Your task to perform on an android device: Search for the best rated kitchen reno kits on Lowes.com Image 0: 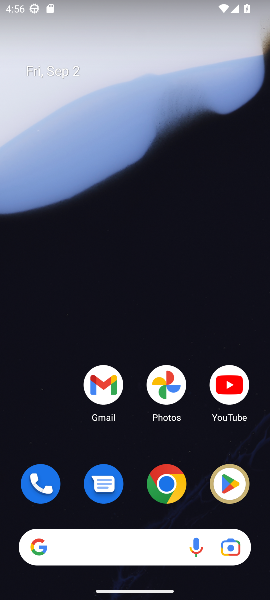
Step 0: click (170, 477)
Your task to perform on an android device: Search for the best rated kitchen reno kits on Lowes.com Image 1: 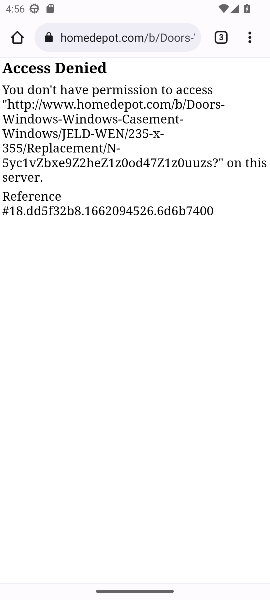
Step 1: press home button
Your task to perform on an android device: Search for the best rated kitchen reno kits on Lowes.com Image 2: 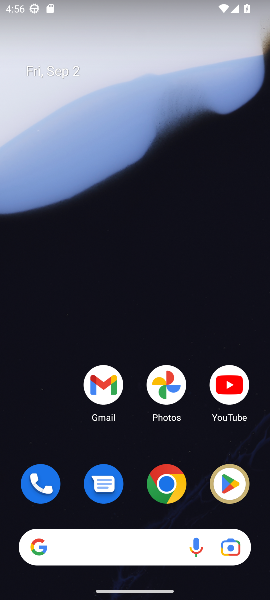
Step 2: click (162, 487)
Your task to perform on an android device: Search for the best rated kitchen reno kits on Lowes.com Image 3: 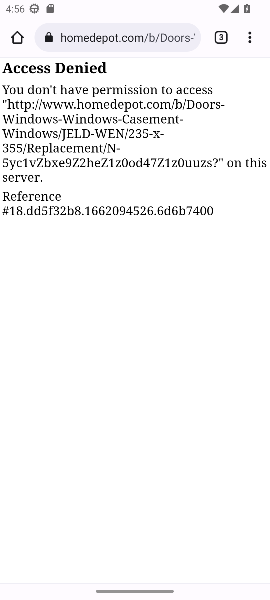
Step 3: click (142, 36)
Your task to perform on an android device: Search for the best rated kitchen reno kits on Lowes.com Image 4: 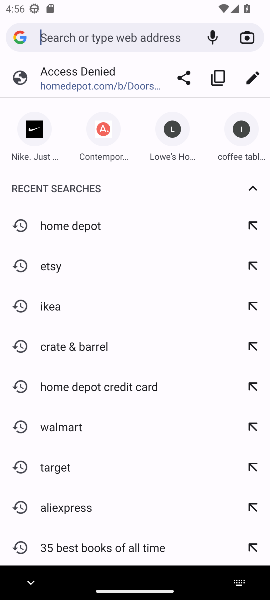
Step 4: type "Lowes.com"
Your task to perform on an android device: Search for the best rated kitchen reno kits on Lowes.com Image 5: 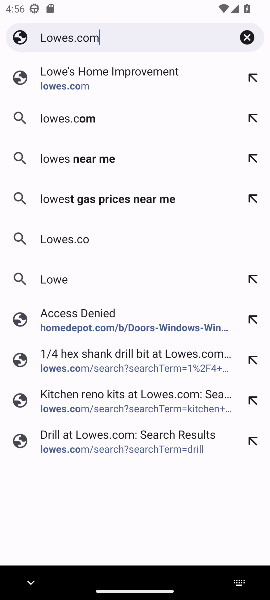
Step 5: press enter
Your task to perform on an android device: Search for the best rated kitchen reno kits on Lowes.com Image 6: 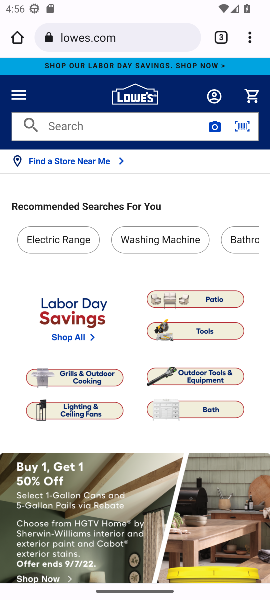
Step 6: click (142, 132)
Your task to perform on an android device: Search for the best rated kitchen reno kits on Lowes.com Image 7: 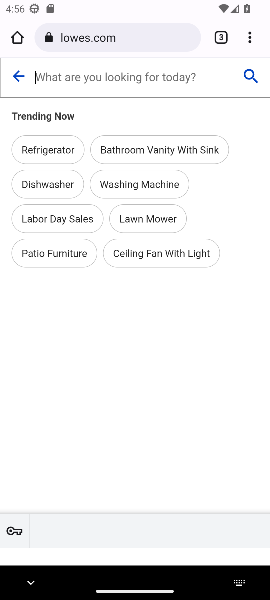
Step 7: type "kitchen reno kits "
Your task to perform on an android device: Search for the best rated kitchen reno kits on Lowes.com Image 8: 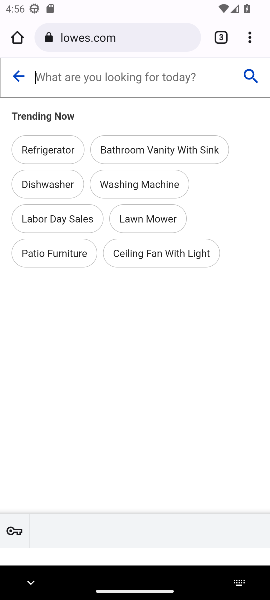
Step 8: press enter
Your task to perform on an android device: Search for the best rated kitchen reno kits on Lowes.com Image 9: 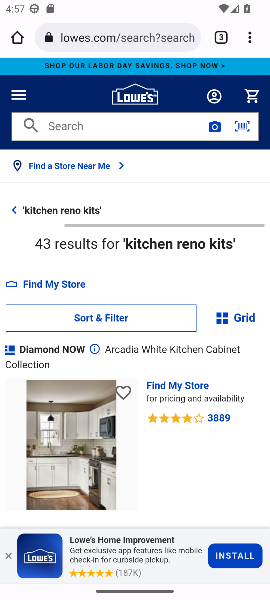
Step 9: task complete